Your task to perform on an android device: empty trash in the gmail app Image 0: 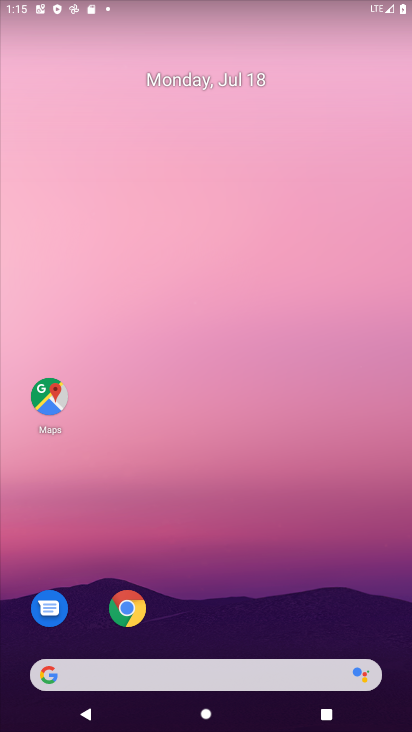
Step 0: drag from (390, 655) to (240, 65)
Your task to perform on an android device: empty trash in the gmail app Image 1: 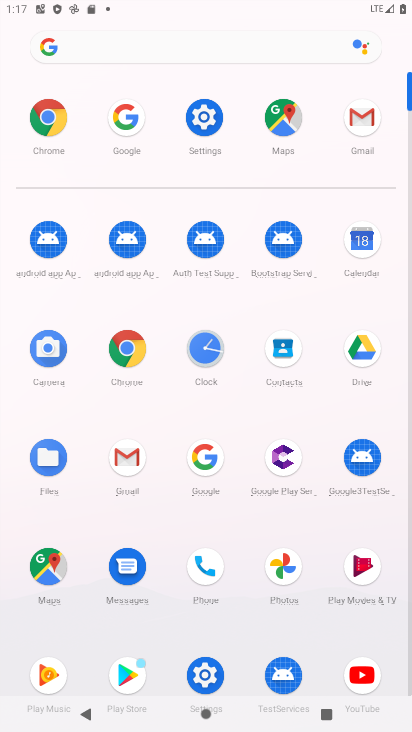
Step 1: click (122, 475)
Your task to perform on an android device: empty trash in the gmail app Image 2: 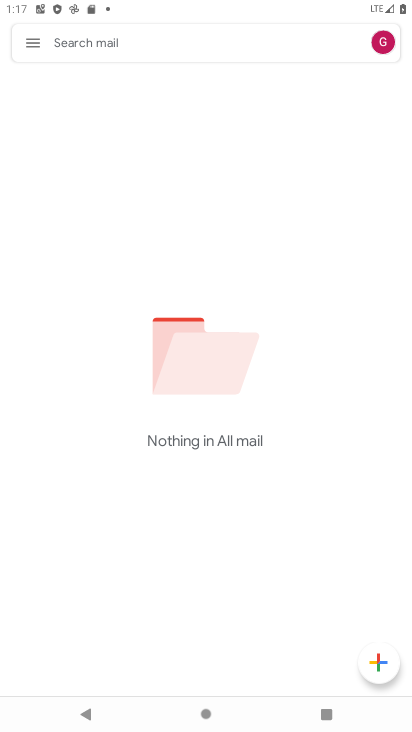
Step 2: click (31, 43)
Your task to perform on an android device: empty trash in the gmail app Image 3: 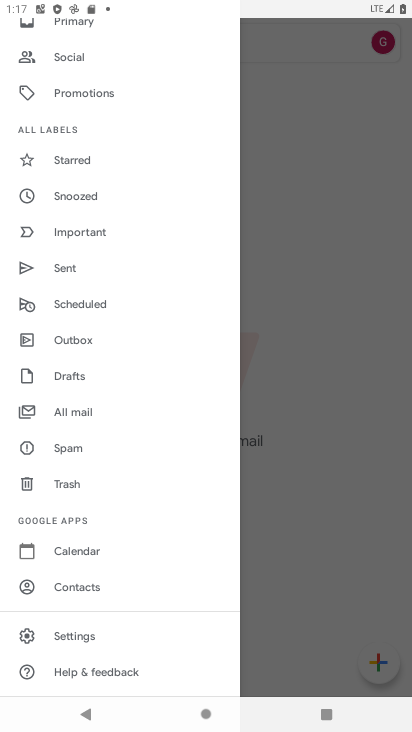
Step 3: click (78, 481)
Your task to perform on an android device: empty trash in the gmail app Image 4: 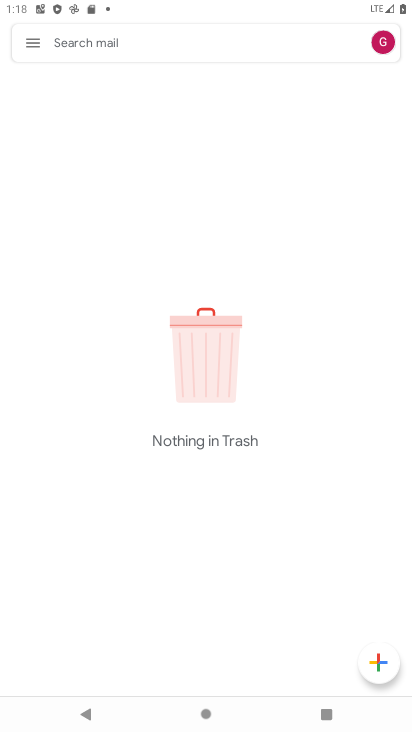
Step 4: task complete